Your task to perform on an android device: turn on airplane mode Image 0: 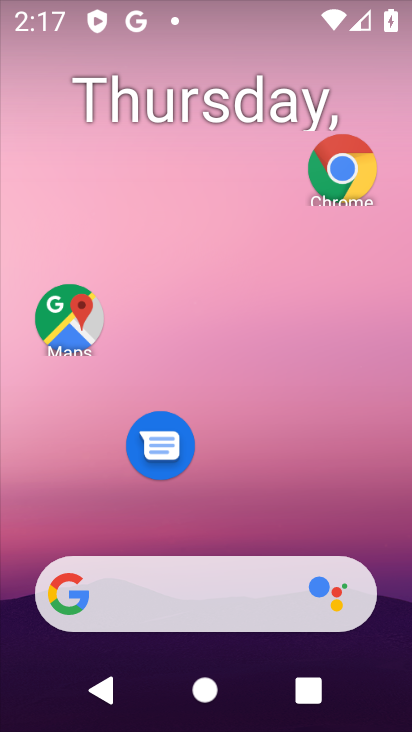
Step 0: drag from (235, 428) to (386, 190)
Your task to perform on an android device: turn on airplane mode Image 1: 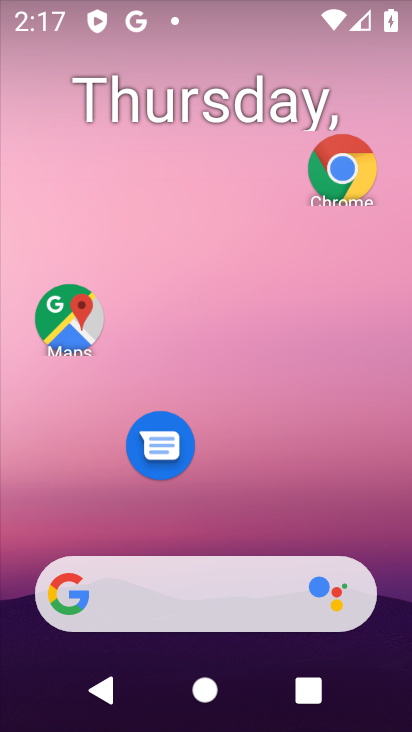
Step 1: drag from (217, 245) to (243, 17)
Your task to perform on an android device: turn on airplane mode Image 2: 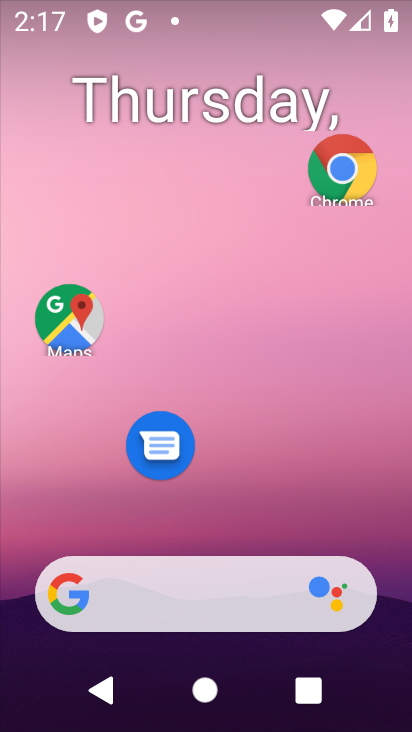
Step 2: drag from (242, 485) to (227, 12)
Your task to perform on an android device: turn on airplane mode Image 3: 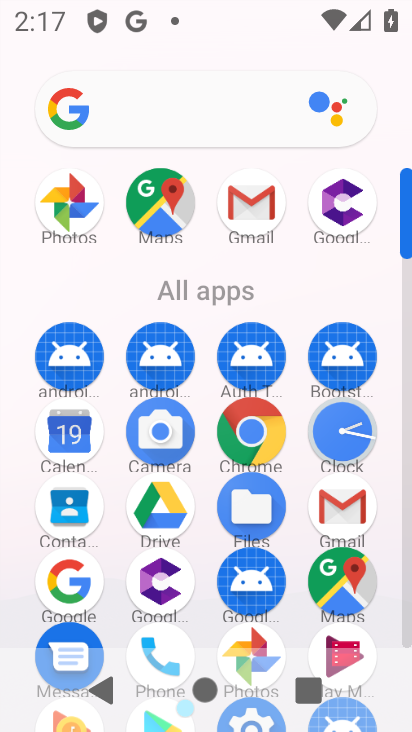
Step 3: drag from (153, 604) to (176, 240)
Your task to perform on an android device: turn on airplane mode Image 4: 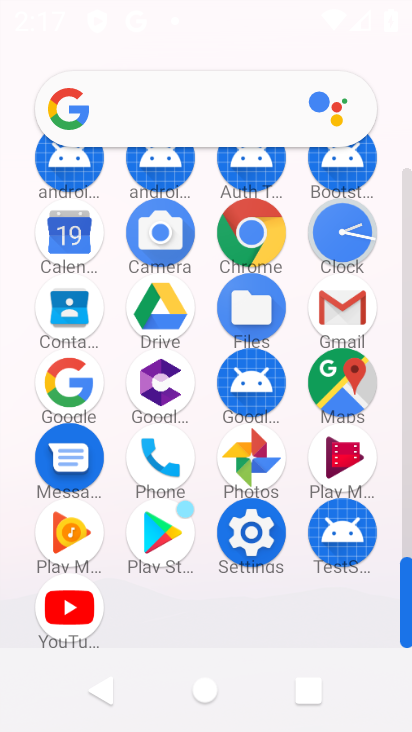
Step 4: click (234, 521)
Your task to perform on an android device: turn on airplane mode Image 5: 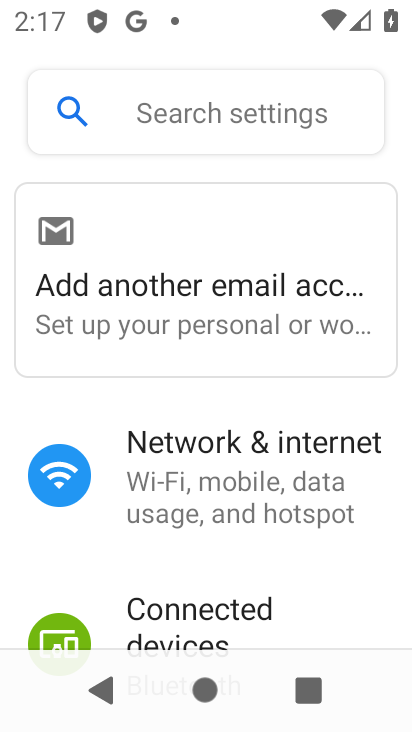
Step 5: click (268, 456)
Your task to perform on an android device: turn on airplane mode Image 6: 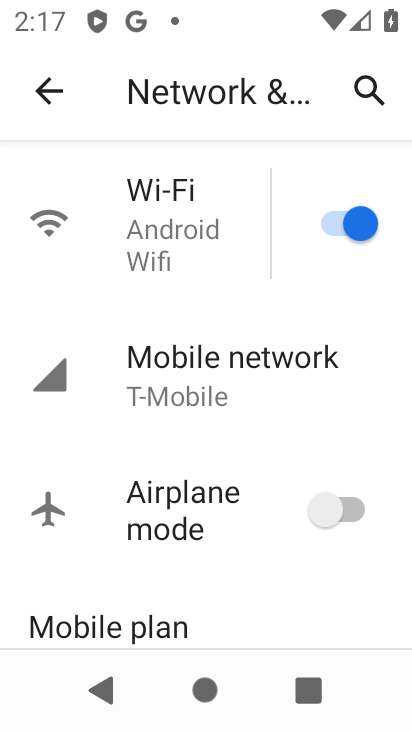
Step 6: click (342, 522)
Your task to perform on an android device: turn on airplane mode Image 7: 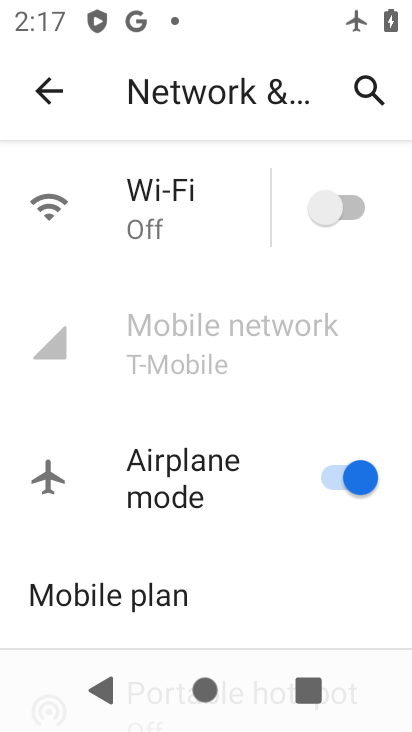
Step 7: task complete